Your task to perform on an android device: find snoozed emails in the gmail app Image 0: 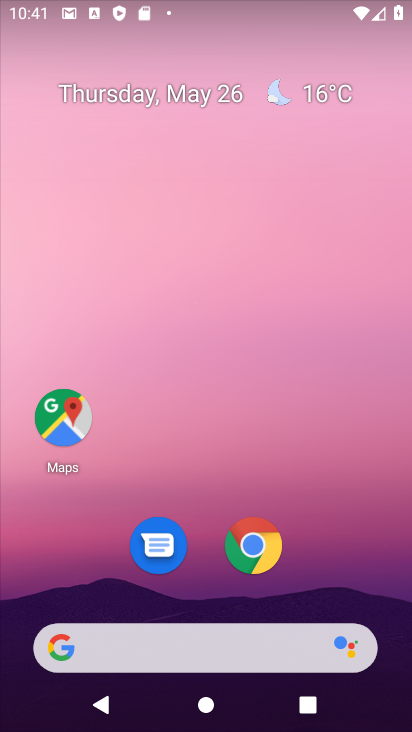
Step 0: press home button
Your task to perform on an android device: find snoozed emails in the gmail app Image 1: 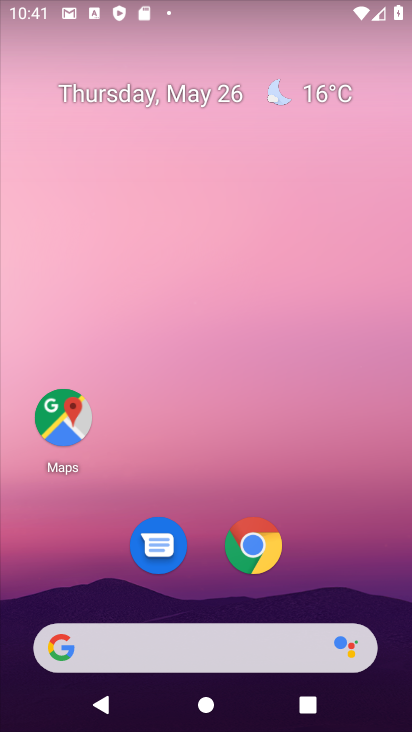
Step 1: drag from (322, 602) to (323, 198)
Your task to perform on an android device: find snoozed emails in the gmail app Image 2: 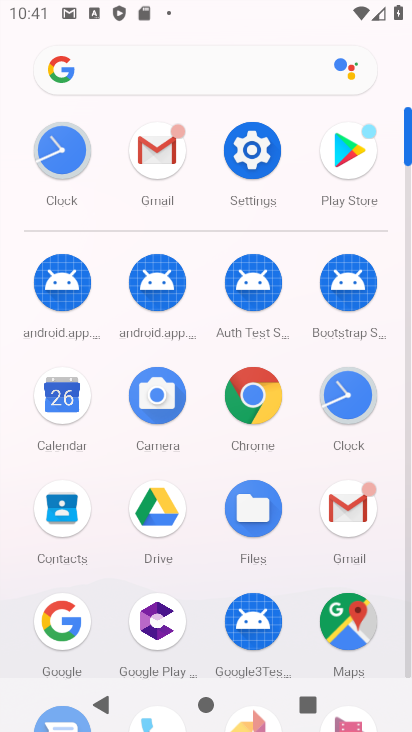
Step 2: click (166, 154)
Your task to perform on an android device: find snoozed emails in the gmail app Image 3: 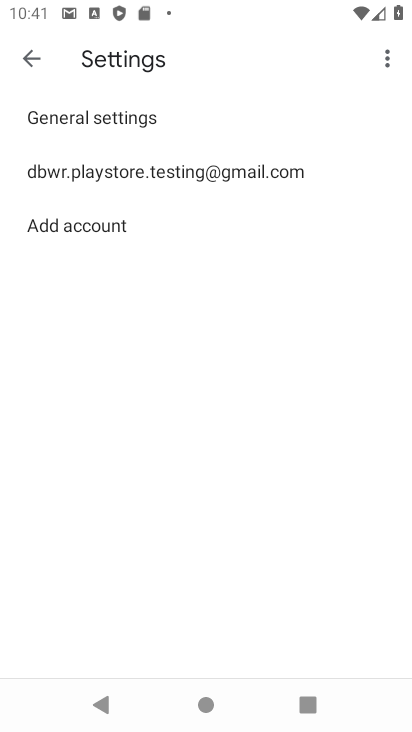
Step 3: click (32, 55)
Your task to perform on an android device: find snoozed emails in the gmail app Image 4: 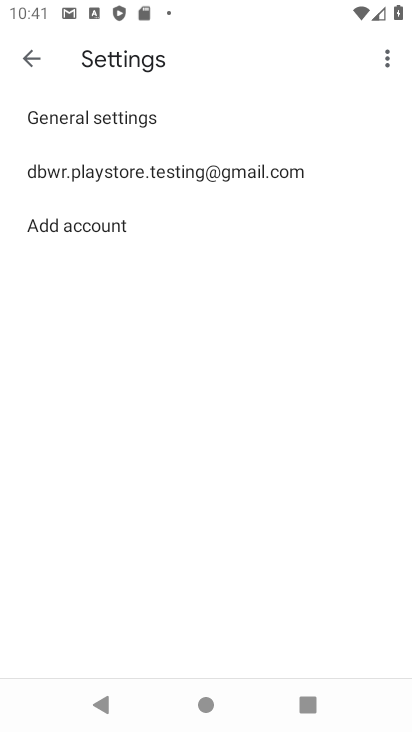
Step 4: click (31, 55)
Your task to perform on an android device: find snoozed emails in the gmail app Image 5: 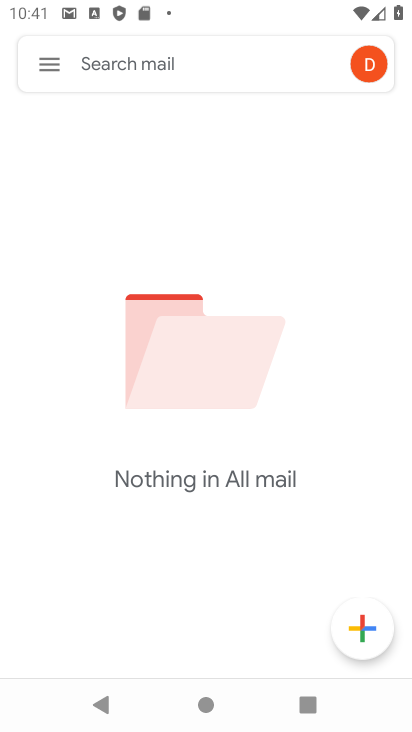
Step 5: click (46, 62)
Your task to perform on an android device: find snoozed emails in the gmail app Image 6: 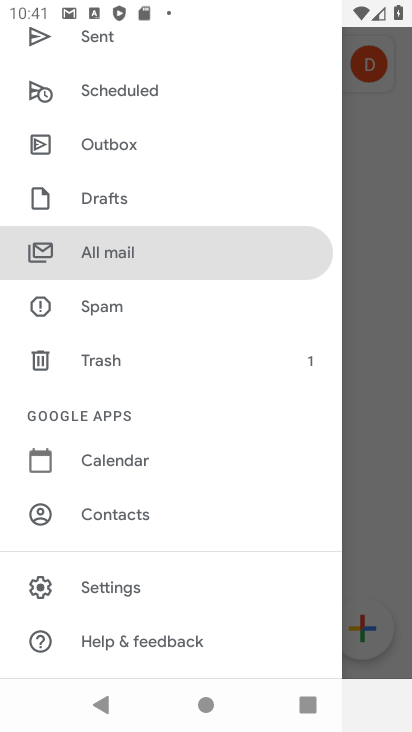
Step 6: drag from (238, 121) to (223, 438)
Your task to perform on an android device: find snoozed emails in the gmail app Image 7: 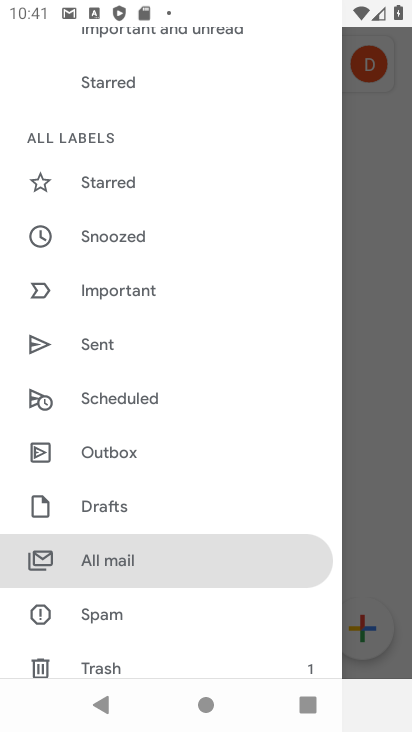
Step 7: click (119, 239)
Your task to perform on an android device: find snoozed emails in the gmail app Image 8: 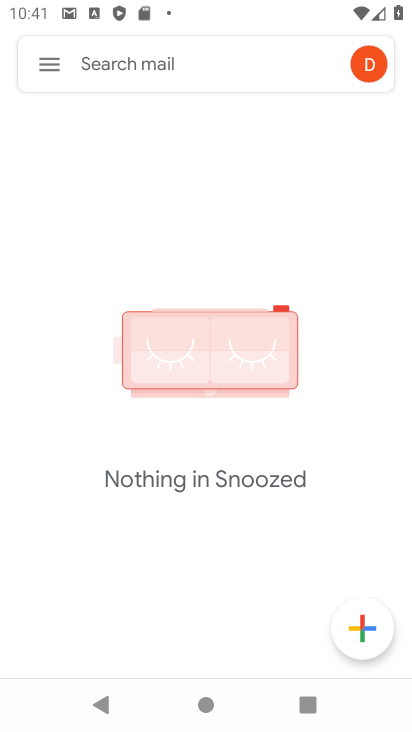
Step 8: task complete